Your task to perform on an android device: Search for sushi restaurants on Maps Image 0: 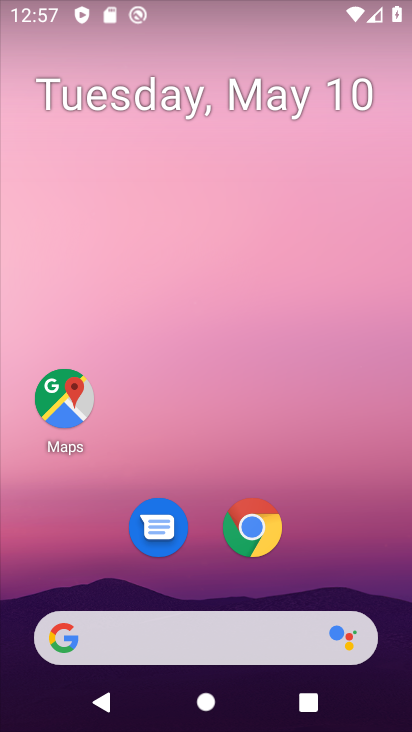
Step 0: click (73, 407)
Your task to perform on an android device: Search for sushi restaurants on Maps Image 1: 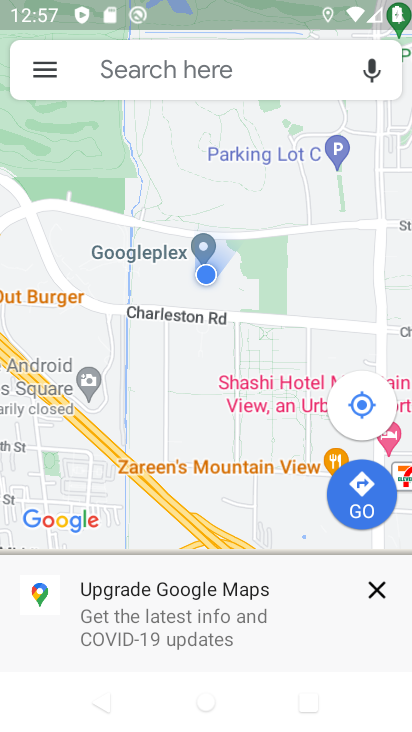
Step 1: click (127, 71)
Your task to perform on an android device: Search for sushi restaurants on Maps Image 2: 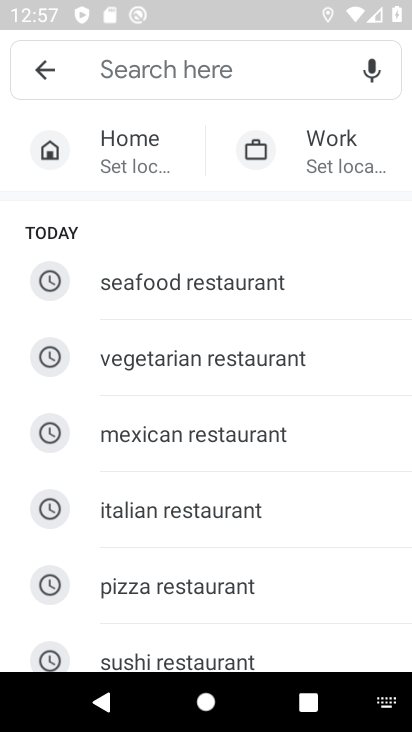
Step 2: type "sushi restaurant"
Your task to perform on an android device: Search for sushi restaurants on Maps Image 3: 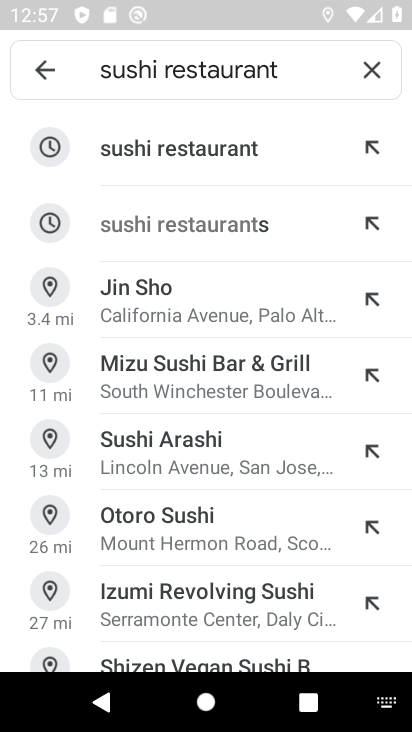
Step 3: click (206, 148)
Your task to perform on an android device: Search for sushi restaurants on Maps Image 4: 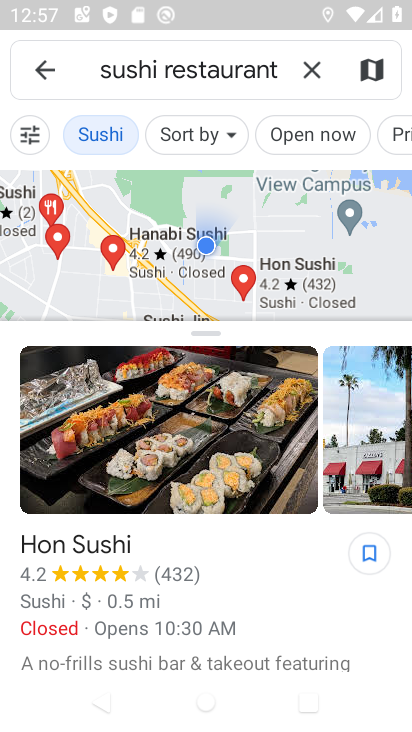
Step 4: task complete